Your task to perform on an android device: turn notification dots on Image 0: 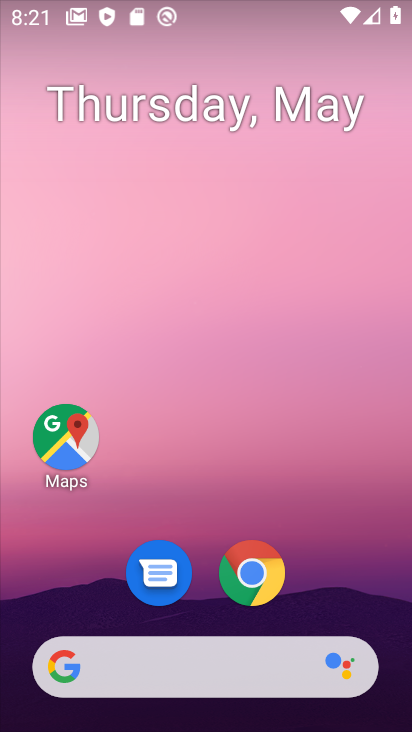
Step 0: drag from (321, 587) to (373, 182)
Your task to perform on an android device: turn notification dots on Image 1: 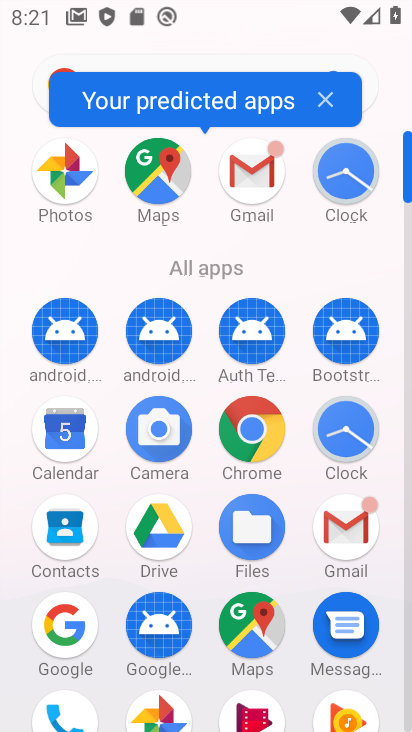
Step 1: drag from (301, 601) to (325, 208)
Your task to perform on an android device: turn notification dots on Image 2: 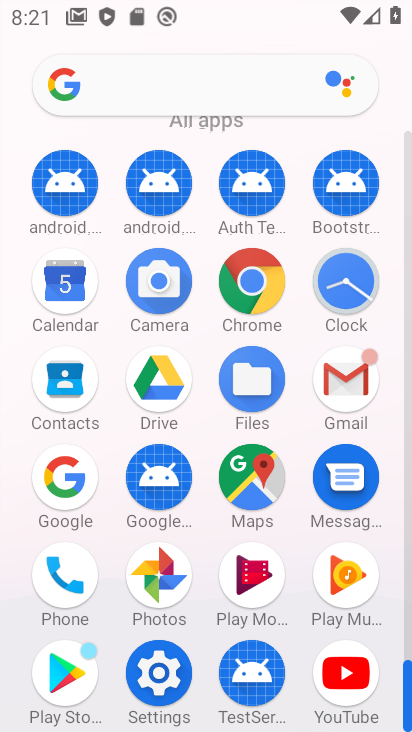
Step 2: click (168, 669)
Your task to perform on an android device: turn notification dots on Image 3: 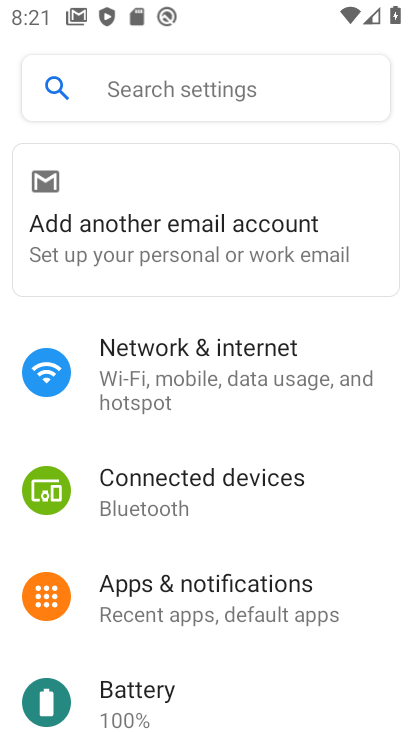
Step 3: click (241, 611)
Your task to perform on an android device: turn notification dots on Image 4: 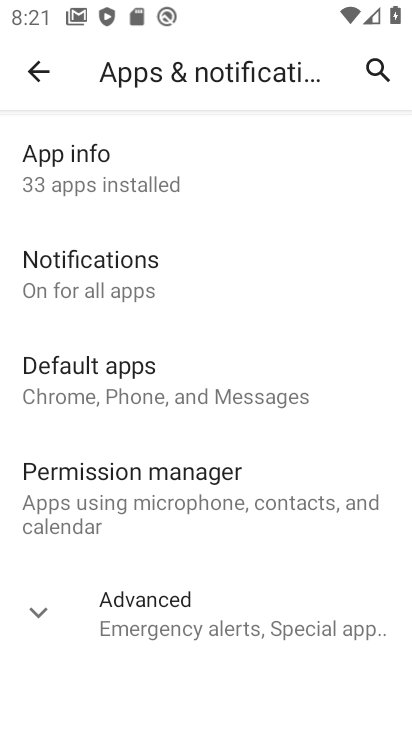
Step 4: click (111, 294)
Your task to perform on an android device: turn notification dots on Image 5: 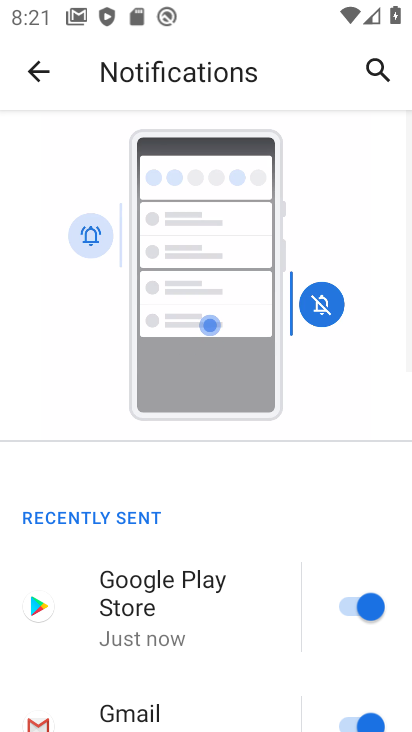
Step 5: drag from (196, 633) to (255, 209)
Your task to perform on an android device: turn notification dots on Image 6: 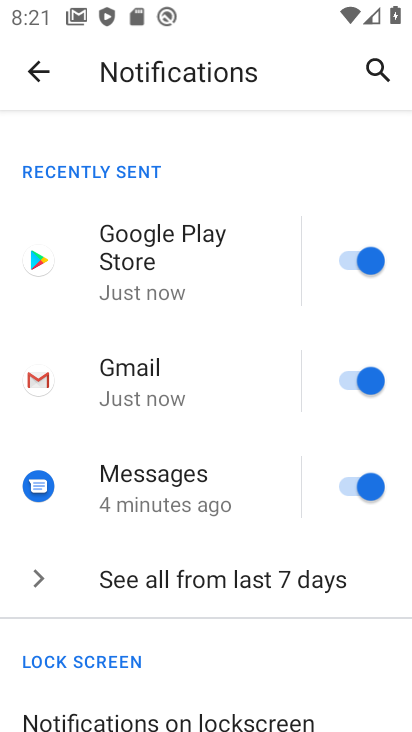
Step 6: drag from (231, 646) to (254, 252)
Your task to perform on an android device: turn notification dots on Image 7: 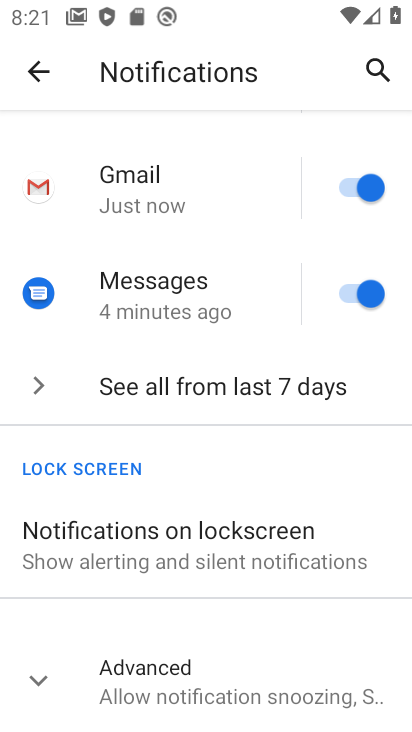
Step 7: click (40, 680)
Your task to perform on an android device: turn notification dots on Image 8: 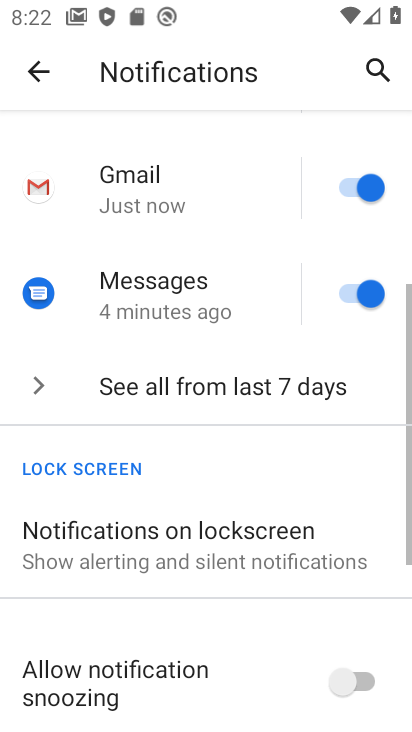
Step 8: task complete